Your task to perform on an android device: When is my next appointment? Image 0: 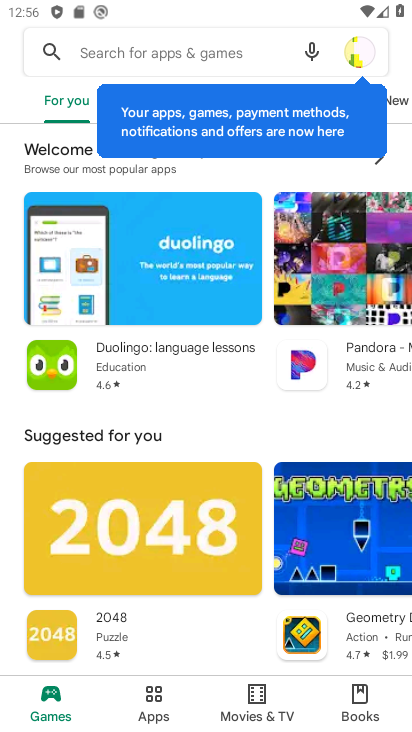
Step 0: press home button
Your task to perform on an android device: When is my next appointment? Image 1: 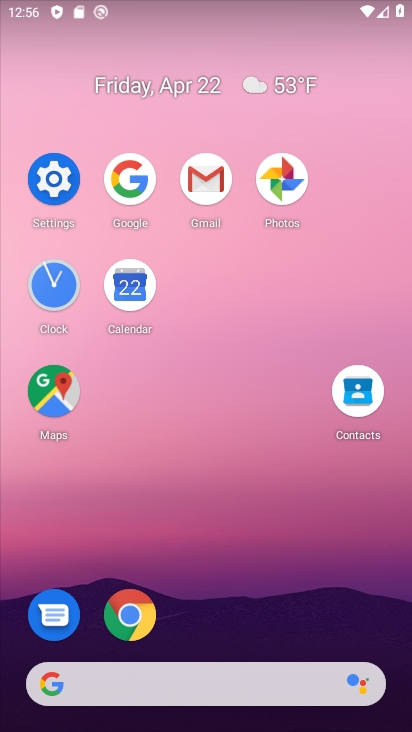
Step 1: click (138, 284)
Your task to perform on an android device: When is my next appointment? Image 2: 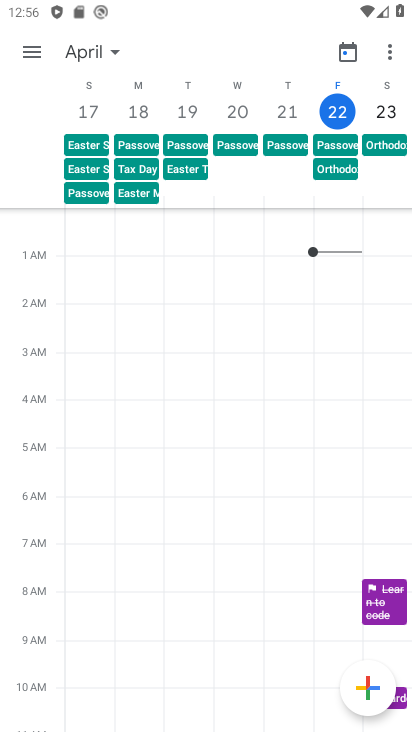
Step 2: click (344, 114)
Your task to perform on an android device: When is my next appointment? Image 3: 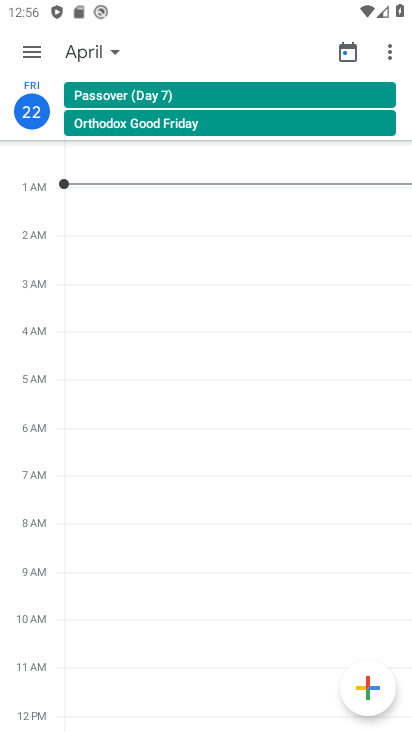
Step 3: task complete